Your task to perform on an android device: allow notifications from all sites in the chrome app Image 0: 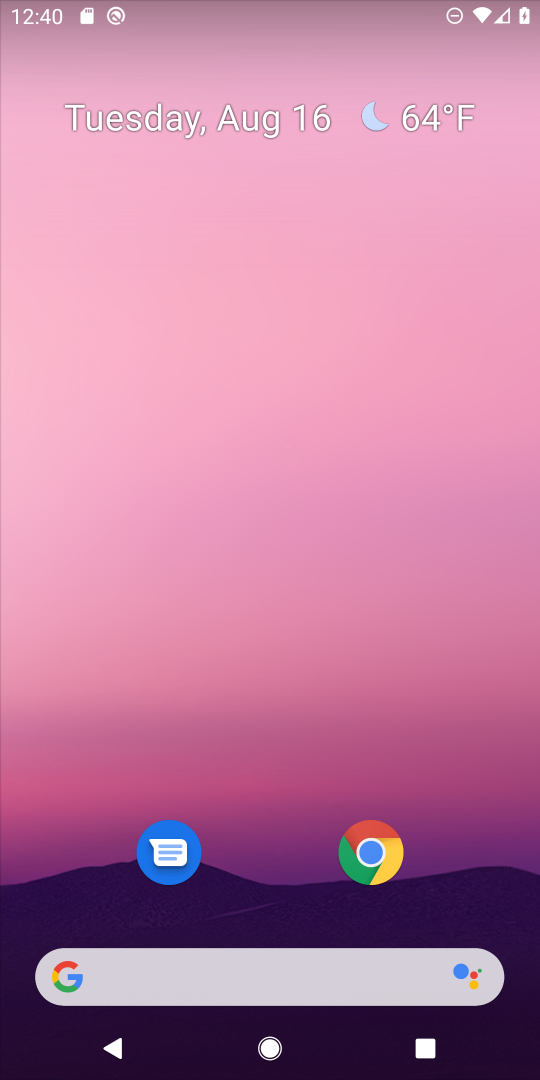
Step 0: click (382, 850)
Your task to perform on an android device: allow notifications from all sites in the chrome app Image 1: 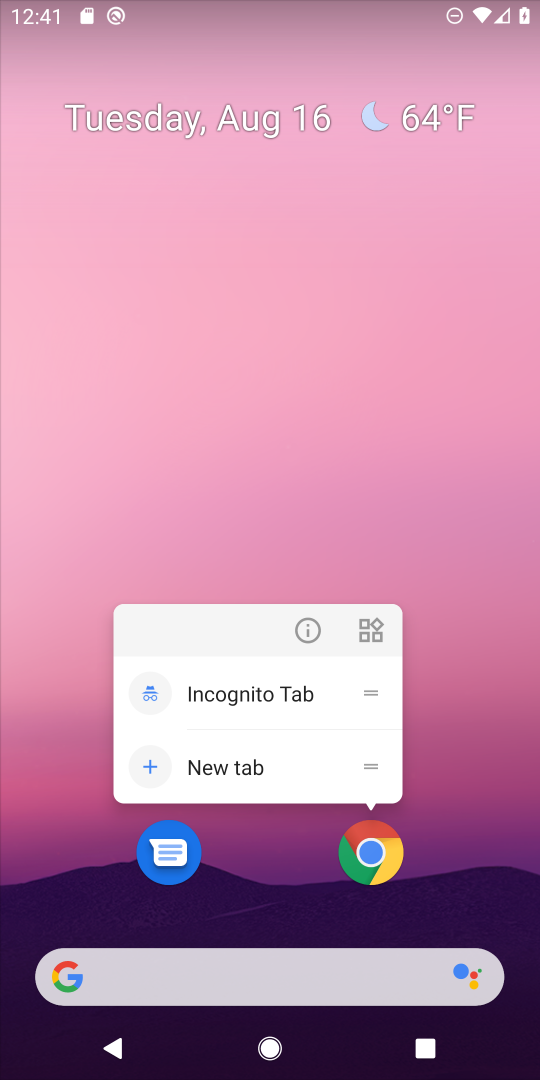
Step 1: click (369, 869)
Your task to perform on an android device: allow notifications from all sites in the chrome app Image 2: 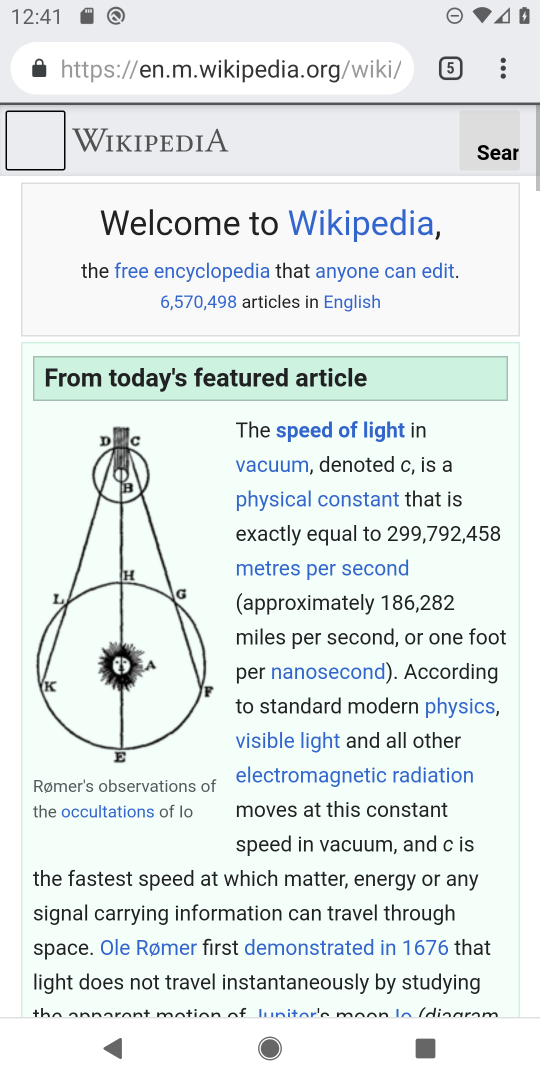
Step 2: drag from (501, 68) to (287, 911)
Your task to perform on an android device: allow notifications from all sites in the chrome app Image 3: 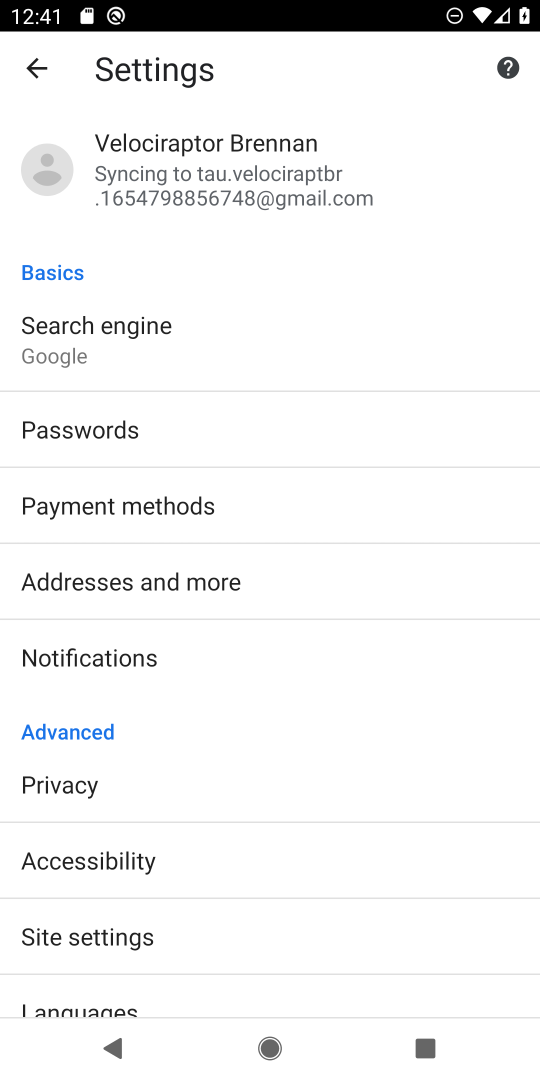
Step 3: click (55, 654)
Your task to perform on an android device: allow notifications from all sites in the chrome app Image 4: 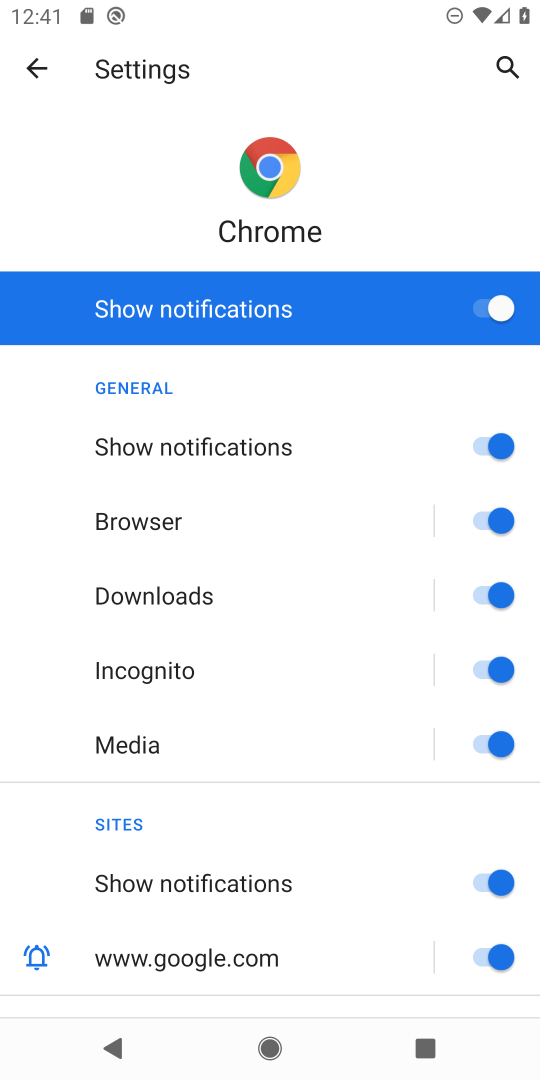
Step 4: task complete